Your task to perform on an android device: turn on sleep mode Image 0: 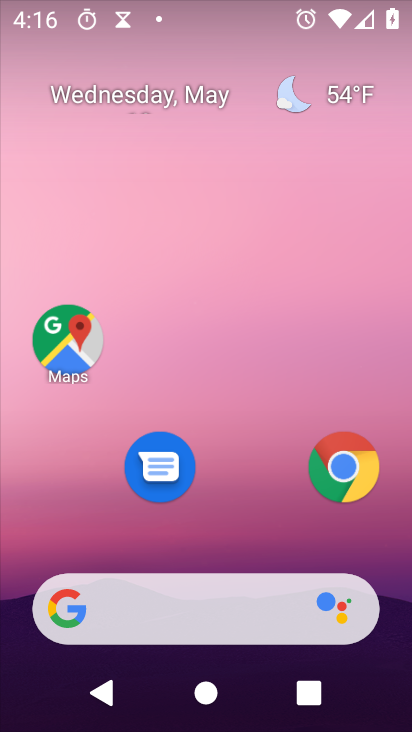
Step 0: drag from (263, 505) to (224, 125)
Your task to perform on an android device: turn on sleep mode Image 1: 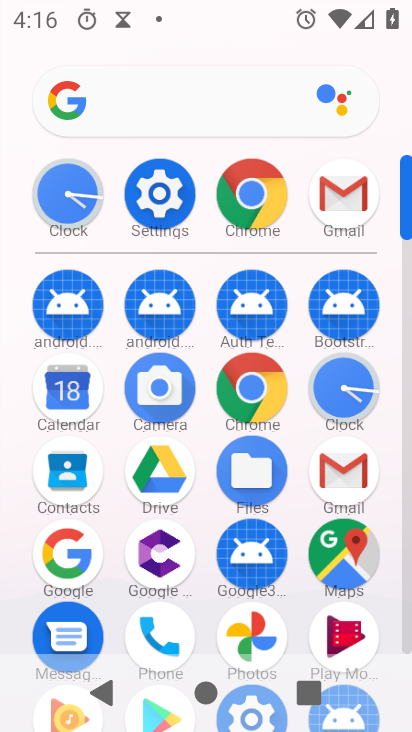
Step 1: click (149, 216)
Your task to perform on an android device: turn on sleep mode Image 2: 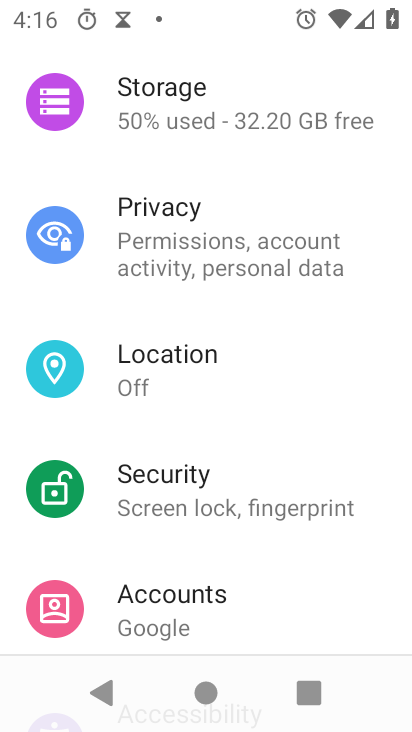
Step 2: drag from (262, 560) to (204, 675)
Your task to perform on an android device: turn on sleep mode Image 3: 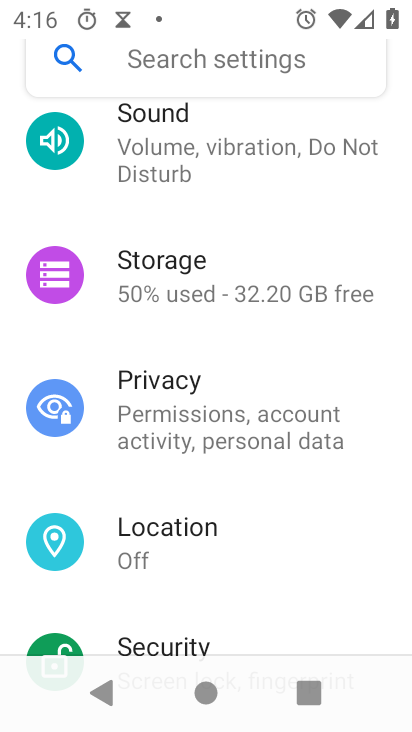
Step 3: drag from (192, 264) to (197, 679)
Your task to perform on an android device: turn on sleep mode Image 4: 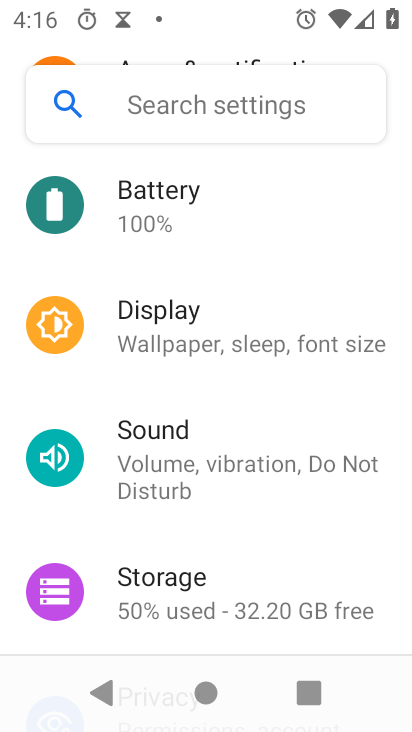
Step 4: click (194, 332)
Your task to perform on an android device: turn on sleep mode Image 5: 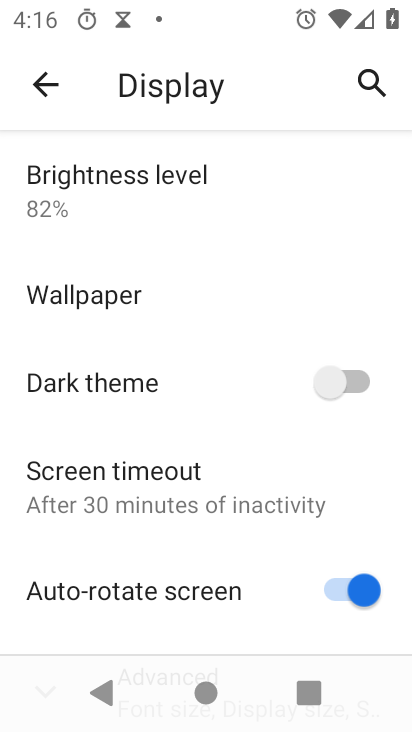
Step 5: task complete